Your task to perform on an android device: turn off smart reply in the gmail app Image 0: 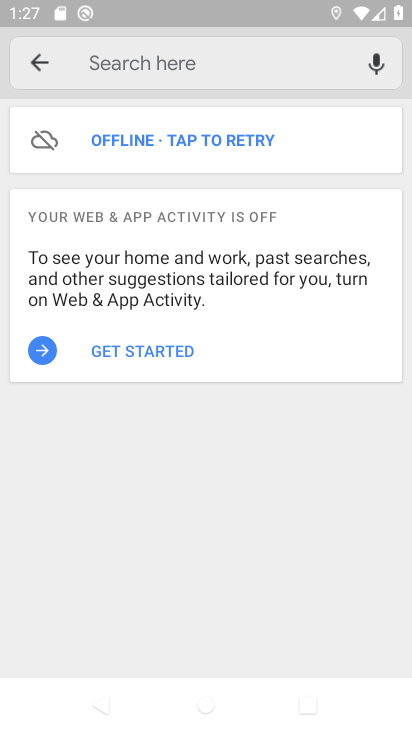
Step 0: press home button
Your task to perform on an android device: turn off smart reply in the gmail app Image 1: 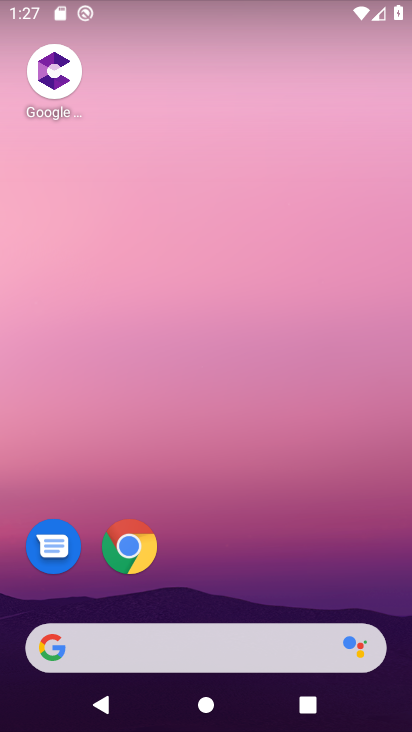
Step 1: drag from (184, 596) to (175, 243)
Your task to perform on an android device: turn off smart reply in the gmail app Image 2: 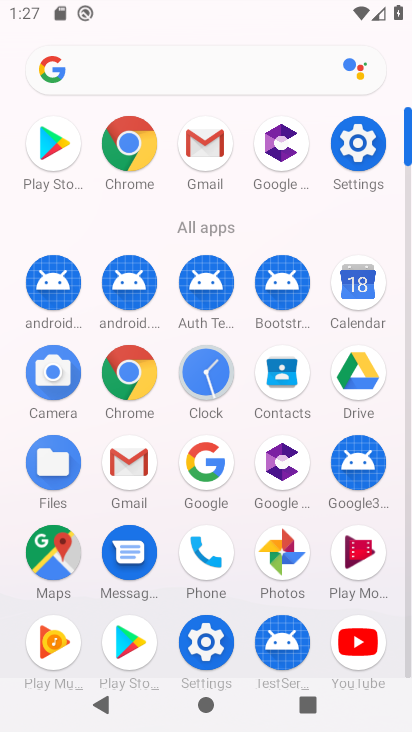
Step 2: click (206, 151)
Your task to perform on an android device: turn off smart reply in the gmail app Image 3: 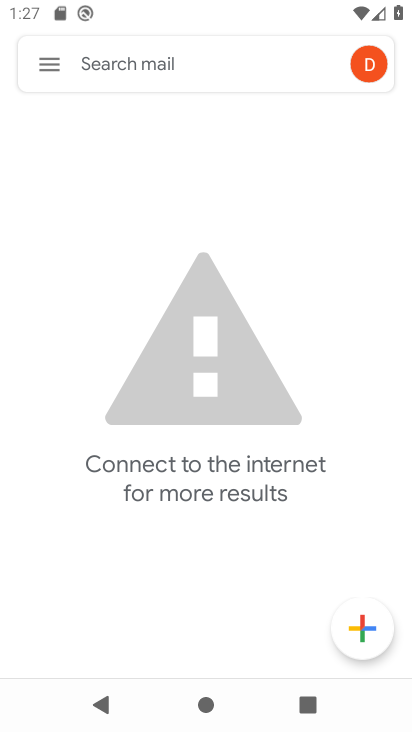
Step 3: click (53, 68)
Your task to perform on an android device: turn off smart reply in the gmail app Image 4: 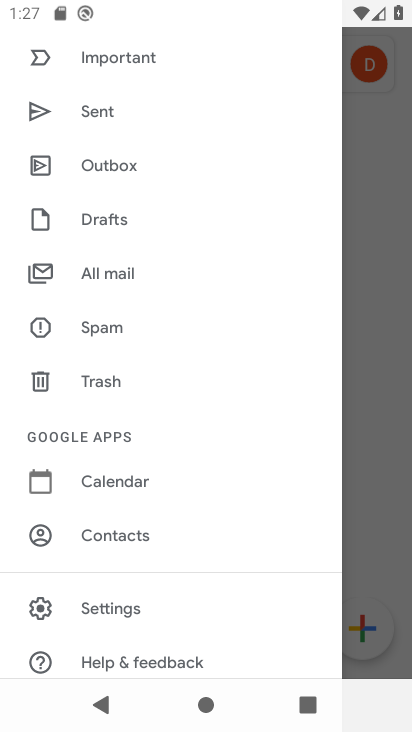
Step 4: click (133, 606)
Your task to perform on an android device: turn off smart reply in the gmail app Image 5: 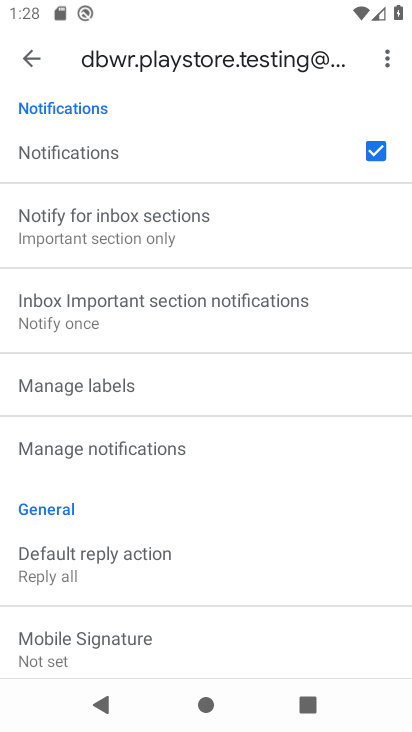
Step 5: task complete